Your task to perform on an android device: Is it going to rain tomorrow? Image 0: 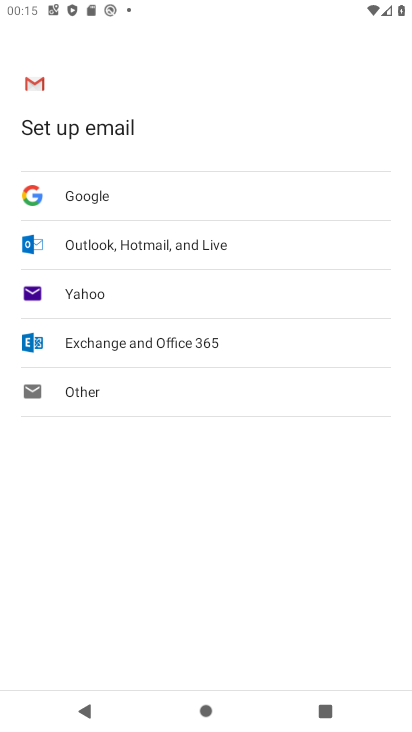
Step 0: press home button
Your task to perform on an android device: Is it going to rain tomorrow? Image 1: 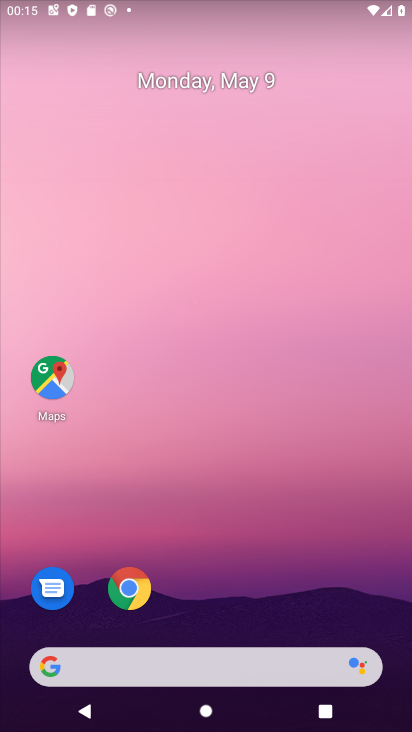
Step 1: click (221, 668)
Your task to perform on an android device: Is it going to rain tomorrow? Image 2: 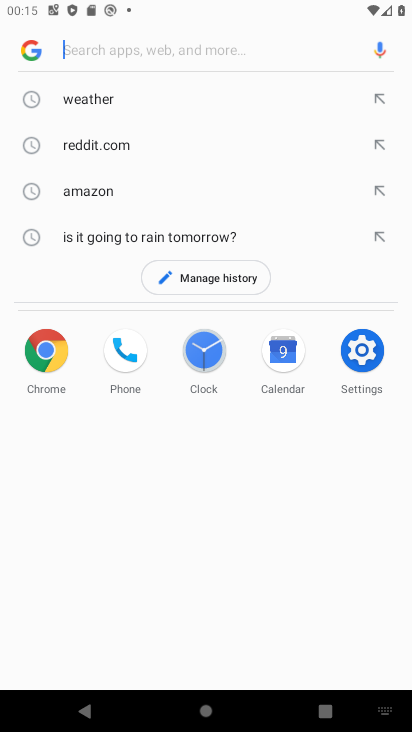
Step 2: click (87, 97)
Your task to perform on an android device: Is it going to rain tomorrow? Image 3: 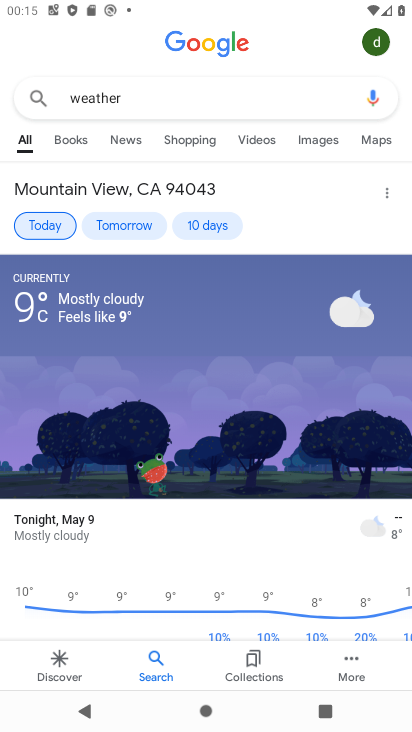
Step 3: click (134, 221)
Your task to perform on an android device: Is it going to rain tomorrow? Image 4: 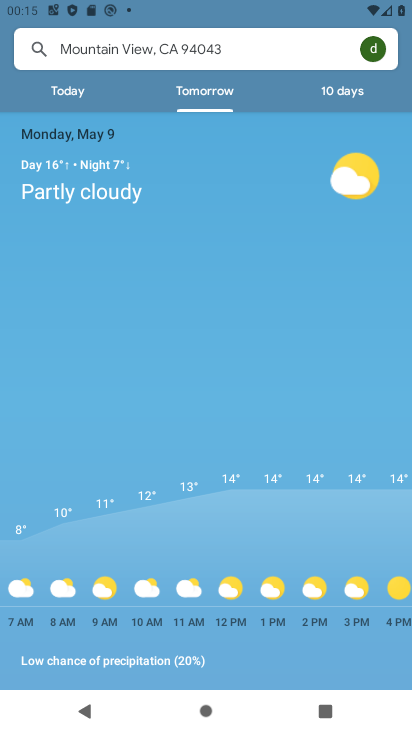
Step 4: task complete